Your task to perform on an android device: Open my contact list Image 0: 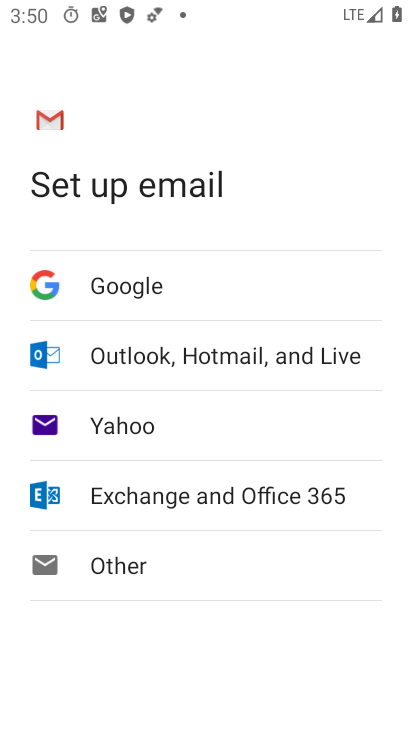
Step 0: press home button
Your task to perform on an android device: Open my contact list Image 1: 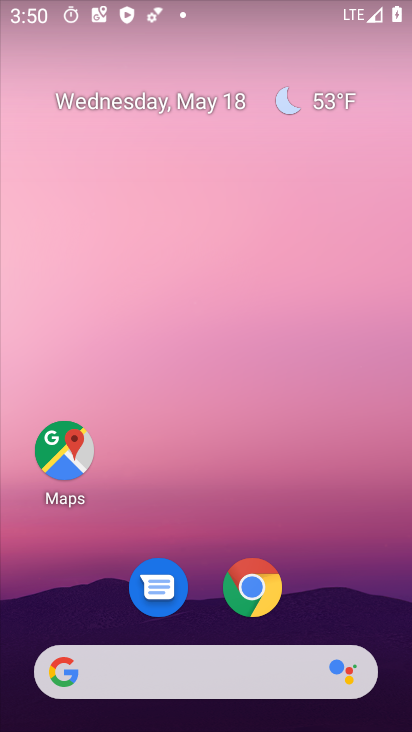
Step 1: drag from (254, 655) to (282, 38)
Your task to perform on an android device: Open my contact list Image 2: 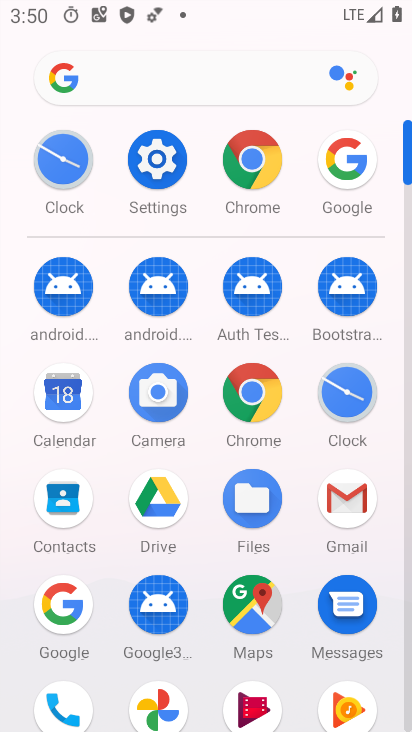
Step 2: click (58, 505)
Your task to perform on an android device: Open my contact list Image 3: 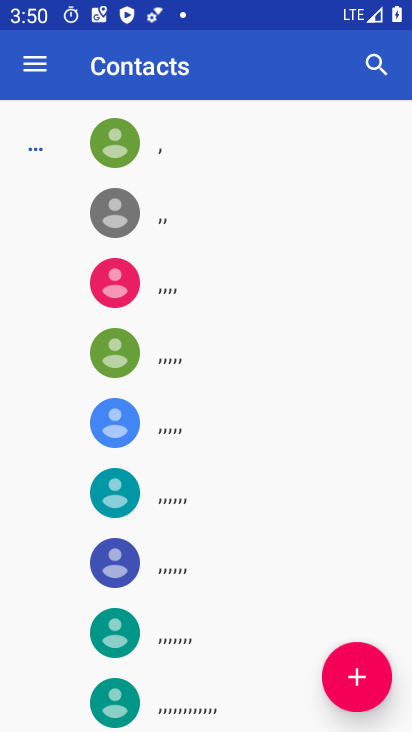
Step 3: task complete